Your task to perform on an android device: Search for Mexican restaurants on Maps Image 0: 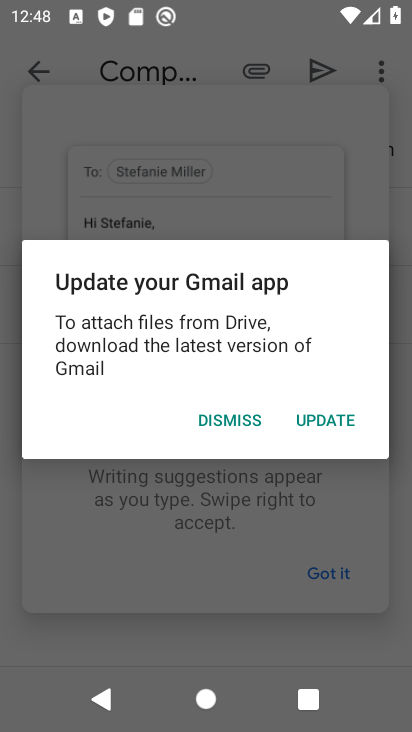
Step 0: click (318, 418)
Your task to perform on an android device: Search for Mexican restaurants on Maps Image 1: 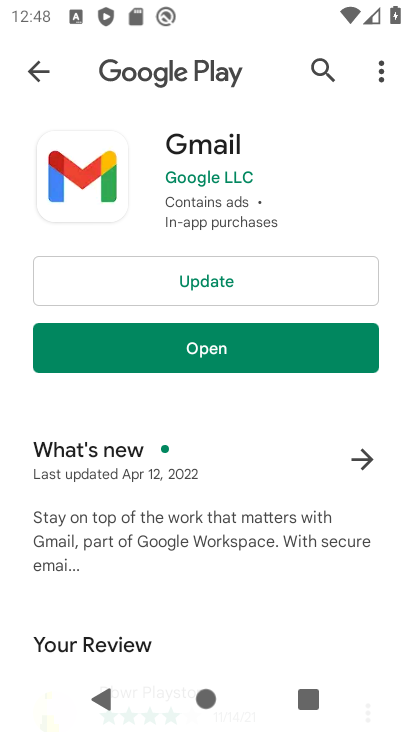
Step 1: press home button
Your task to perform on an android device: Search for Mexican restaurants on Maps Image 2: 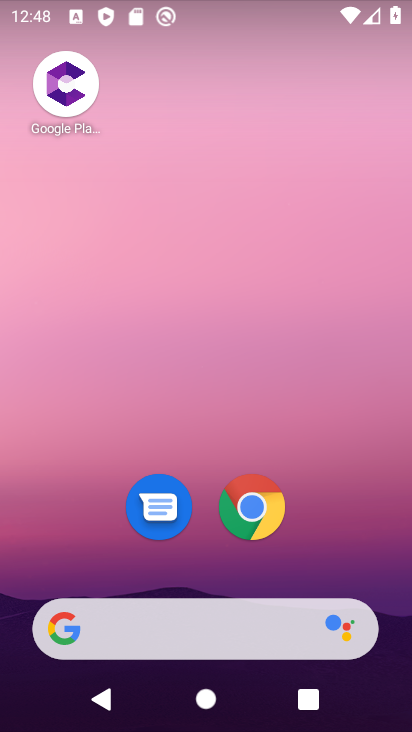
Step 2: drag from (208, 567) to (181, 48)
Your task to perform on an android device: Search for Mexican restaurants on Maps Image 3: 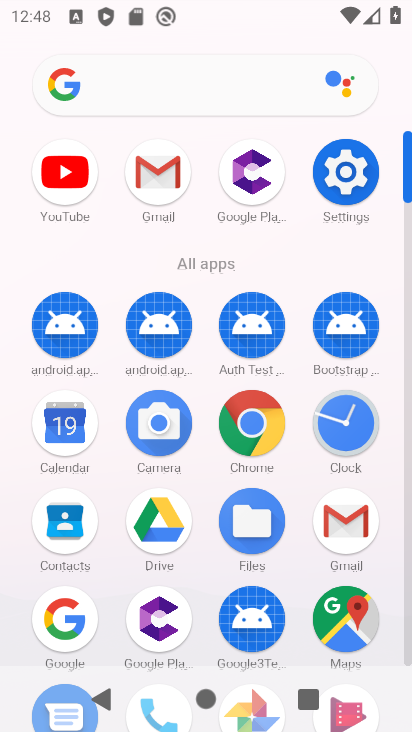
Step 3: click (339, 613)
Your task to perform on an android device: Search for Mexican restaurants on Maps Image 4: 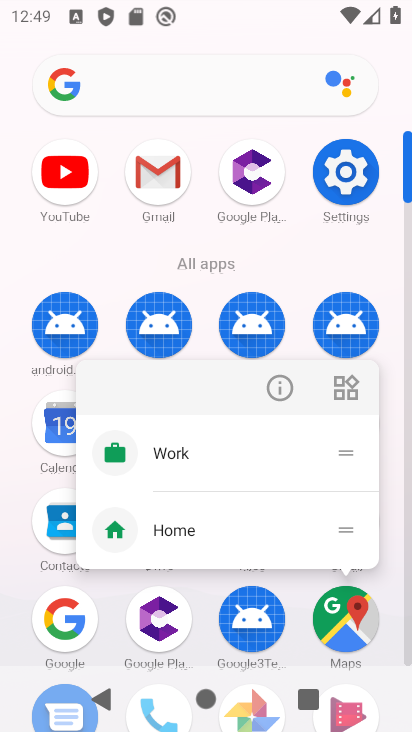
Step 4: click (358, 620)
Your task to perform on an android device: Search for Mexican restaurants on Maps Image 5: 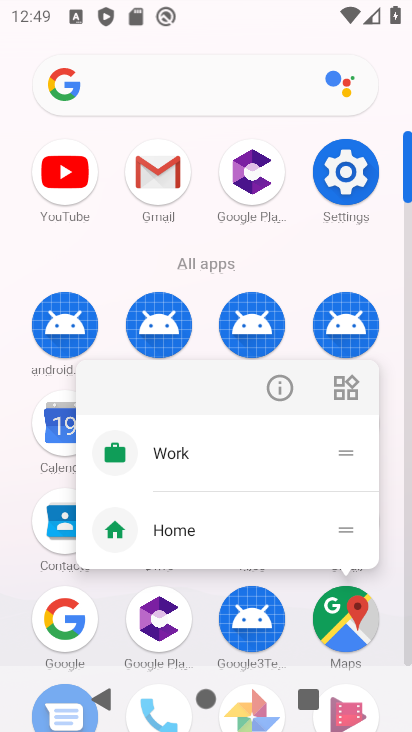
Step 5: click (333, 626)
Your task to perform on an android device: Search for Mexican restaurants on Maps Image 6: 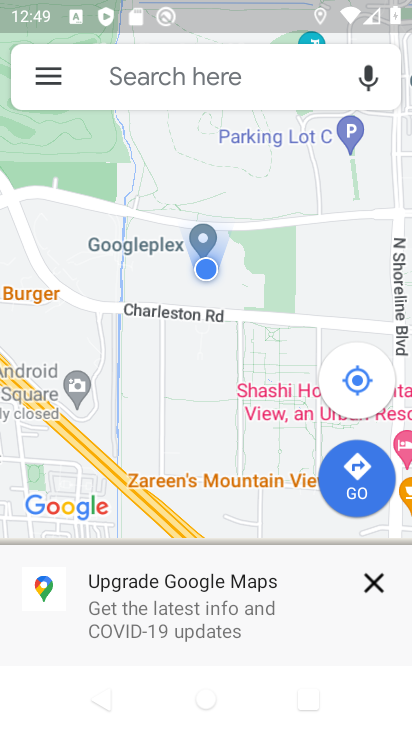
Step 6: click (140, 70)
Your task to perform on an android device: Search for Mexican restaurants on Maps Image 7: 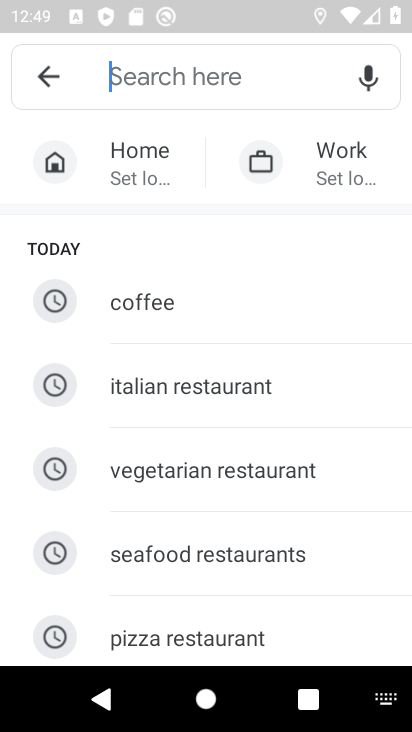
Step 7: type "mexican restaurants"
Your task to perform on an android device: Search for Mexican restaurants on Maps Image 8: 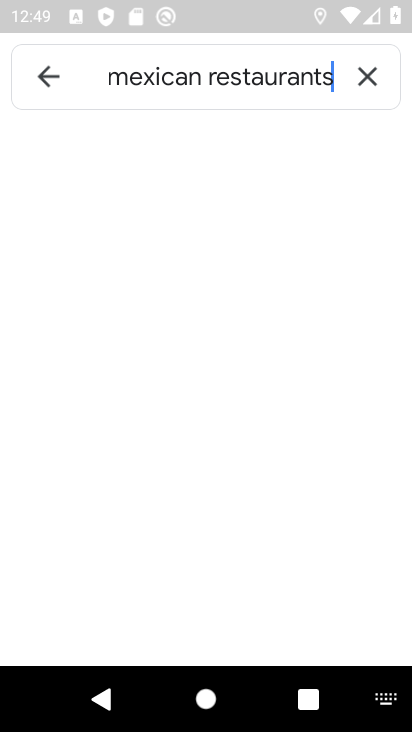
Step 8: type ""
Your task to perform on an android device: Search for Mexican restaurants on Maps Image 9: 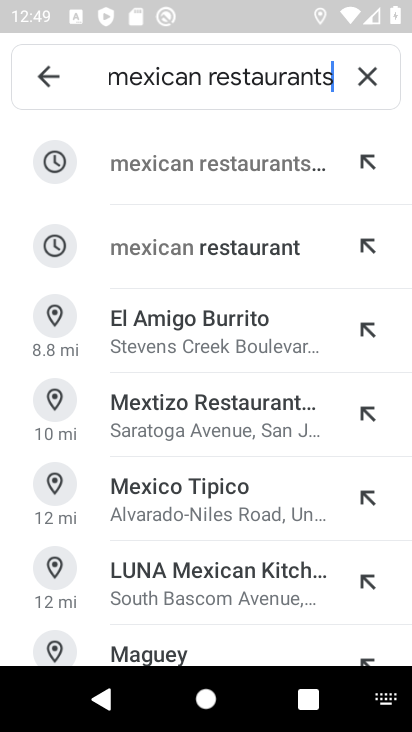
Step 9: click (237, 176)
Your task to perform on an android device: Search for Mexican restaurants on Maps Image 10: 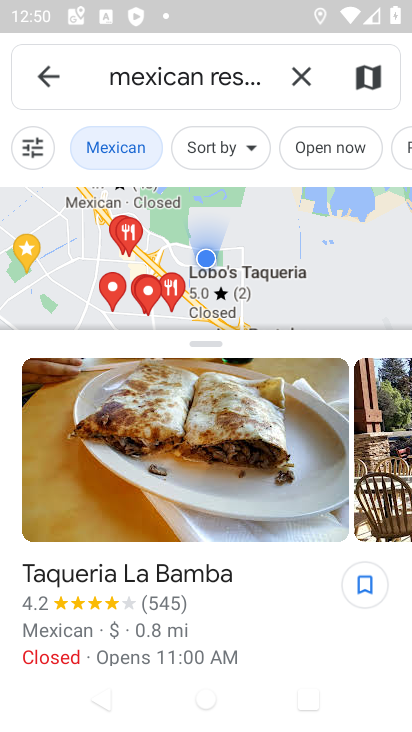
Step 10: task complete